Your task to perform on an android device: allow notifications from all sites in the chrome app Image 0: 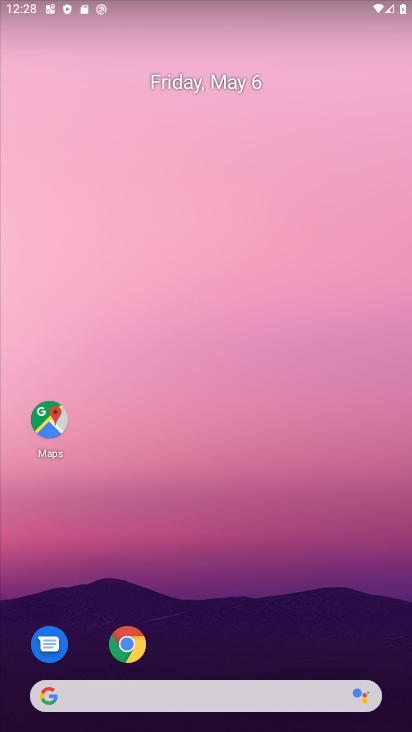
Step 0: drag from (135, 626) to (76, 54)
Your task to perform on an android device: allow notifications from all sites in the chrome app Image 1: 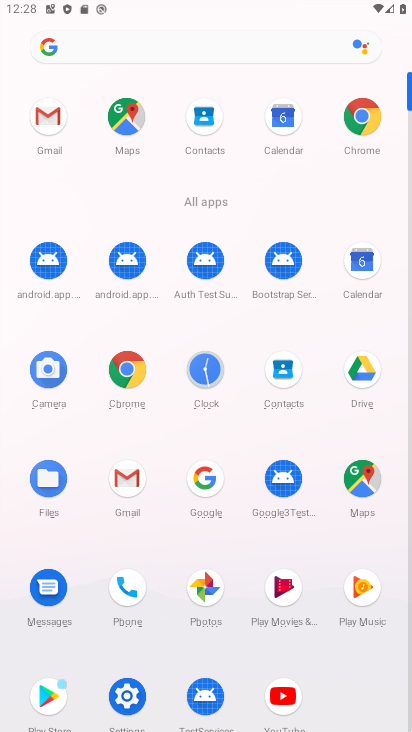
Step 1: click (136, 697)
Your task to perform on an android device: allow notifications from all sites in the chrome app Image 2: 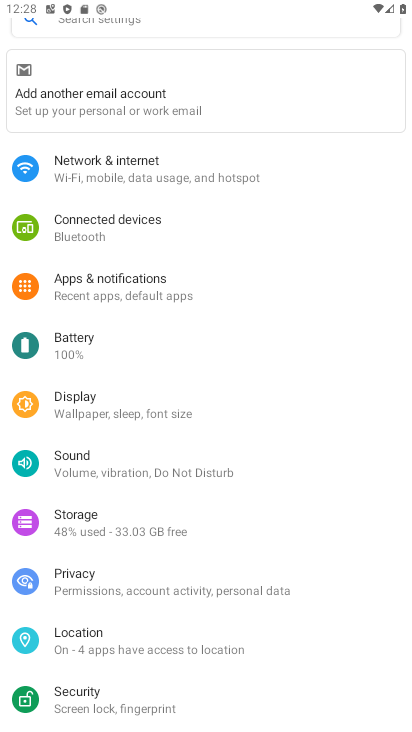
Step 2: press home button
Your task to perform on an android device: allow notifications from all sites in the chrome app Image 3: 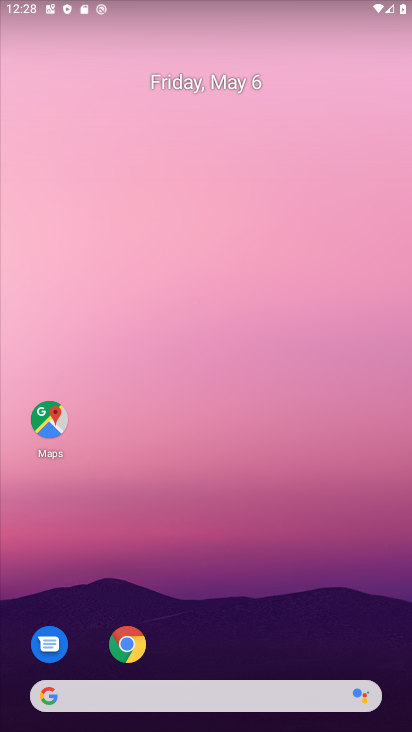
Step 3: drag from (251, 672) to (287, 0)
Your task to perform on an android device: allow notifications from all sites in the chrome app Image 4: 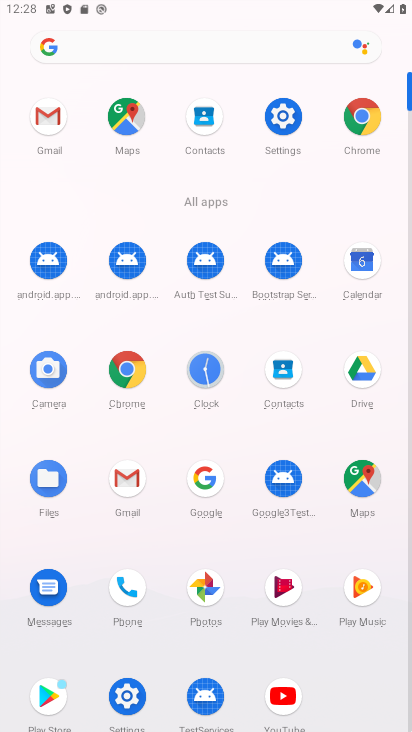
Step 4: click (360, 108)
Your task to perform on an android device: allow notifications from all sites in the chrome app Image 5: 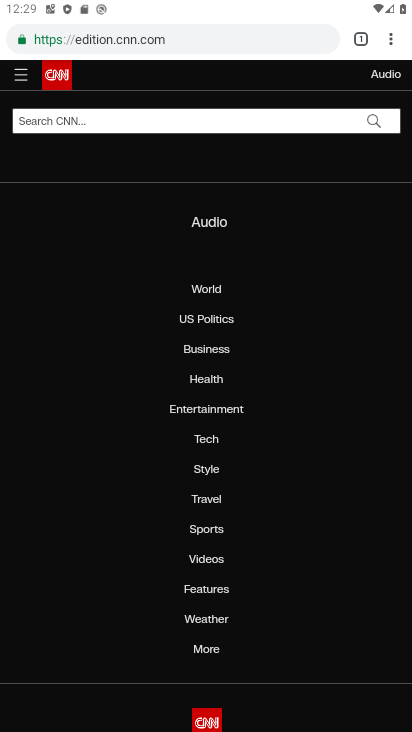
Step 5: drag from (397, 36) to (262, 484)
Your task to perform on an android device: allow notifications from all sites in the chrome app Image 6: 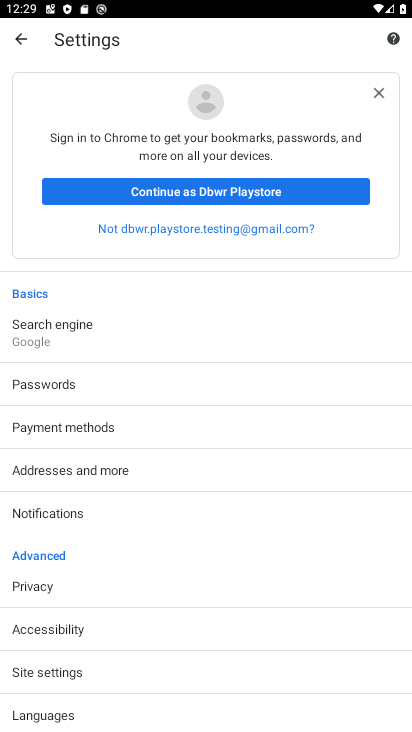
Step 6: drag from (121, 650) to (108, 338)
Your task to perform on an android device: allow notifications from all sites in the chrome app Image 7: 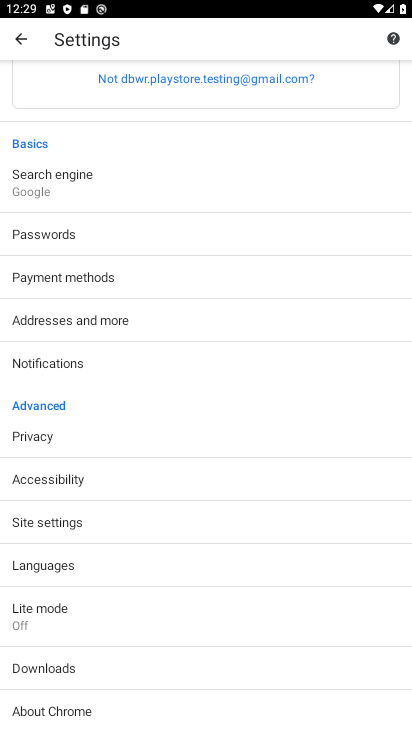
Step 7: drag from (99, 669) to (154, 319)
Your task to perform on an android device: allow notifications from all sites in the chrome app Image 8: 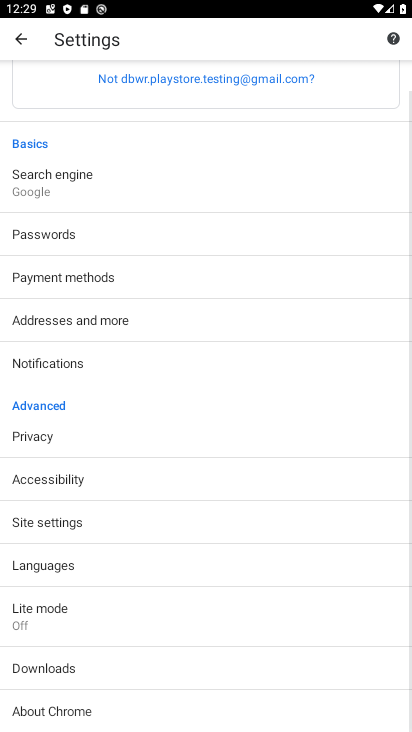
Step 8: drag from (136, 227) to (134, 440)
Your task to perform on an android device: allow notifications from all sites in the chrome app Image 9: 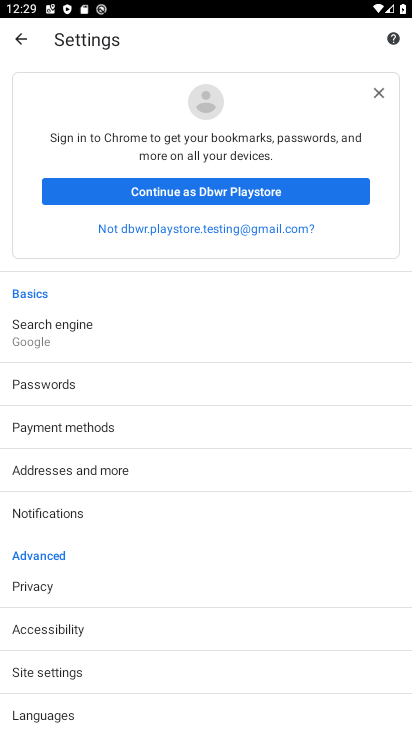
Step 9: click (89, 512)
Your task to perform on an android device: allow notifications from all sites in the chrome app Image 10: 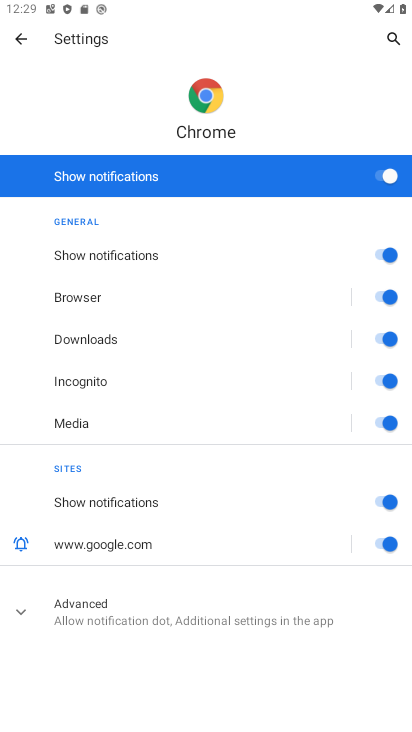
Step 10: task complete